Your task to perform on an android device: View the shopping cart on target. Image 0: 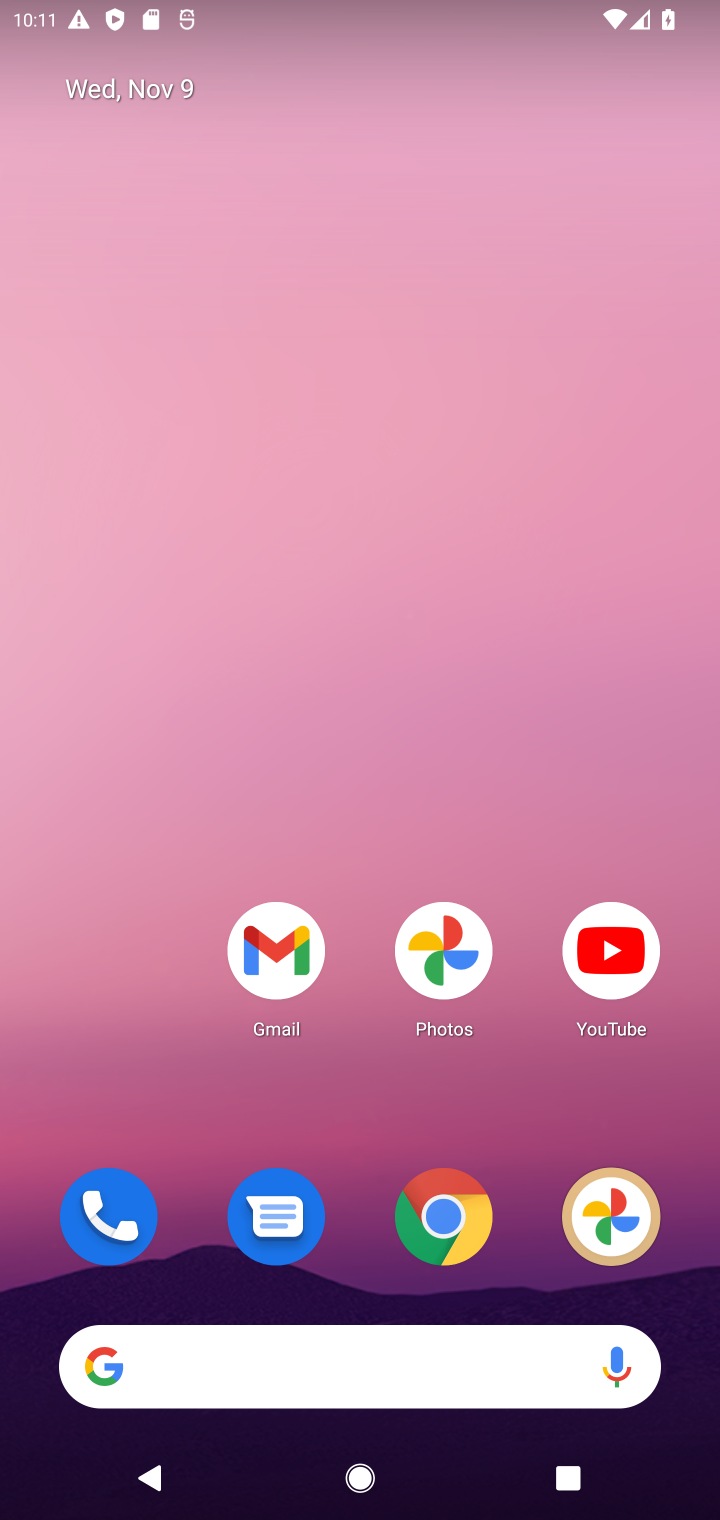
Step 0: drag from (369, 1103) to (227, 2)
Your task to perform on an android device: View the shopping cart on target. Image 1: 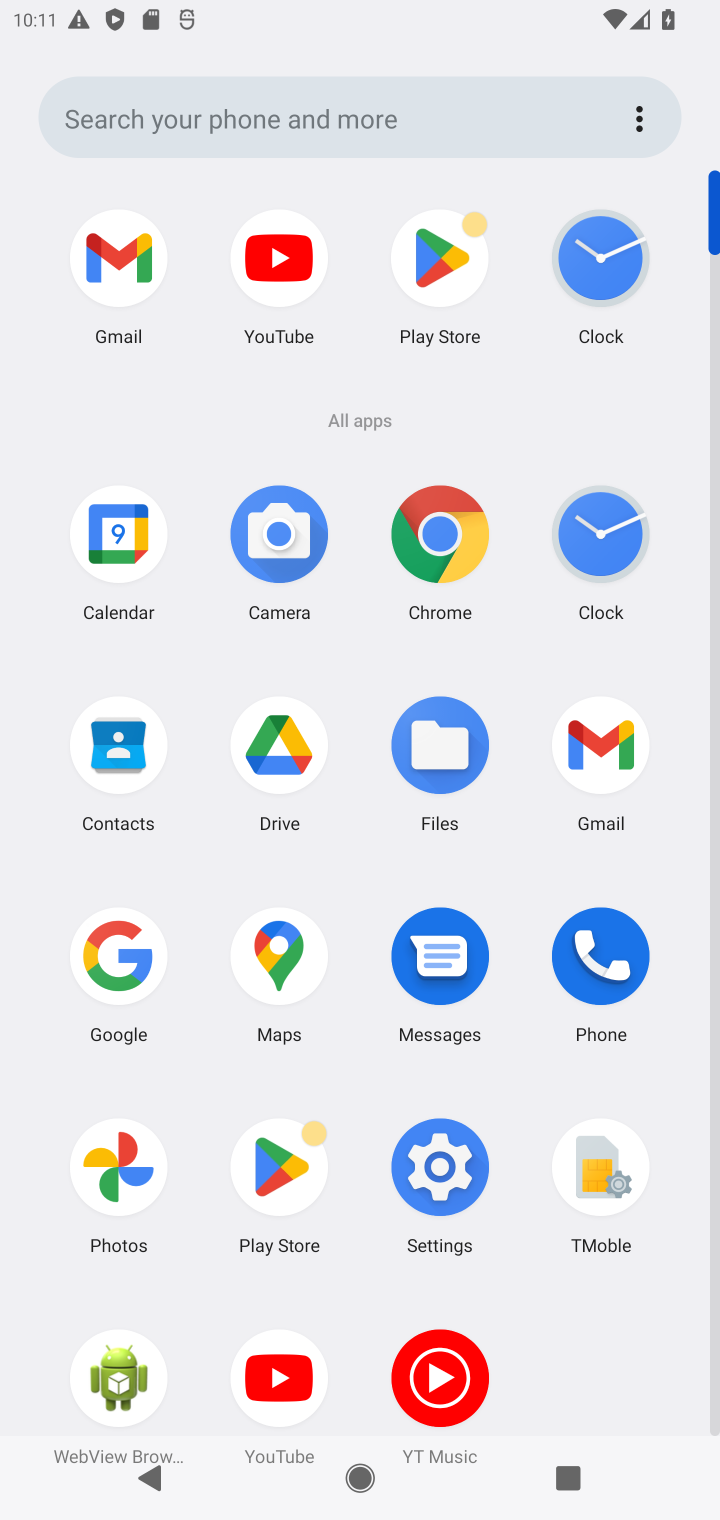
Step 1: click (431, 534)
Your task to perform on an android device: View the shopping cart on target. Image 2: 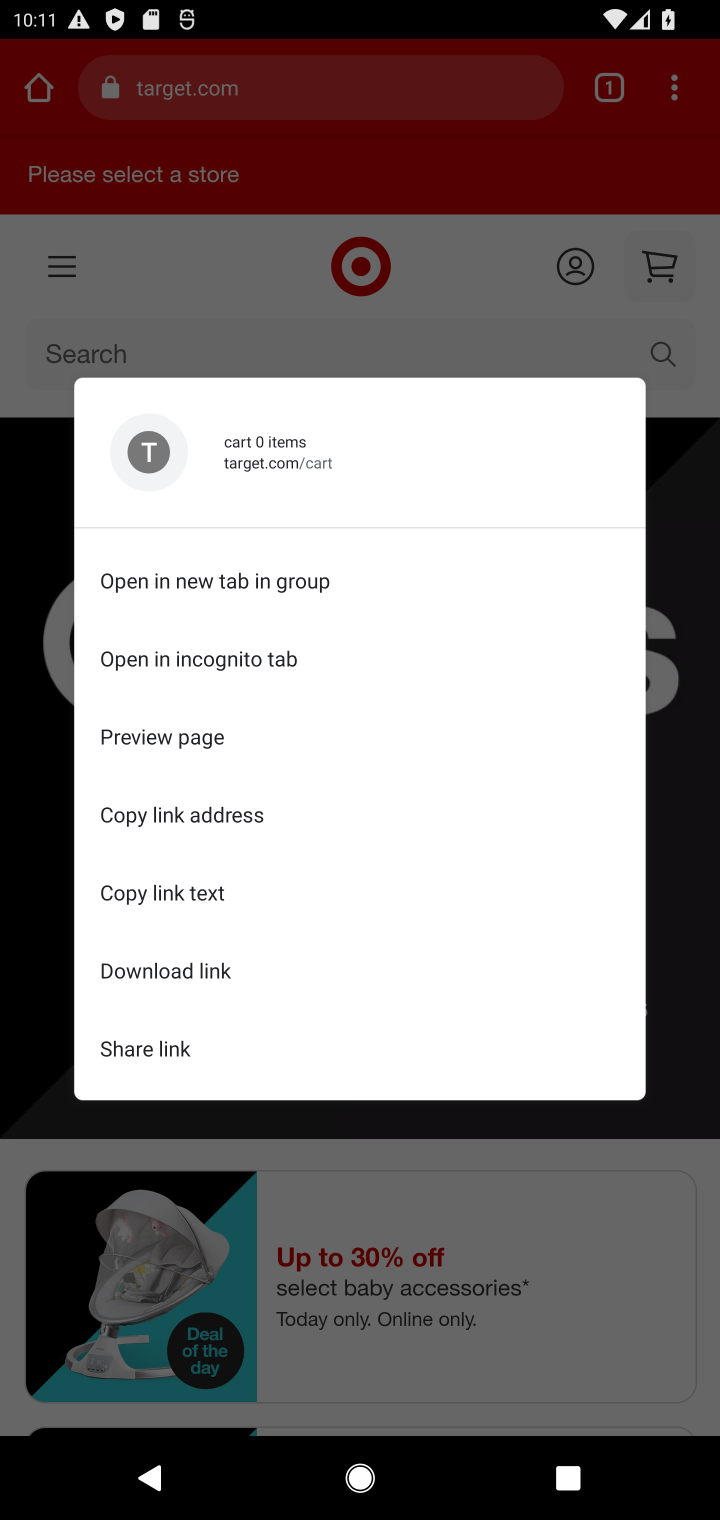
Step 2: click (433, 127)
Your task to perform on an android device: View the shopping cart on target. Image 3: 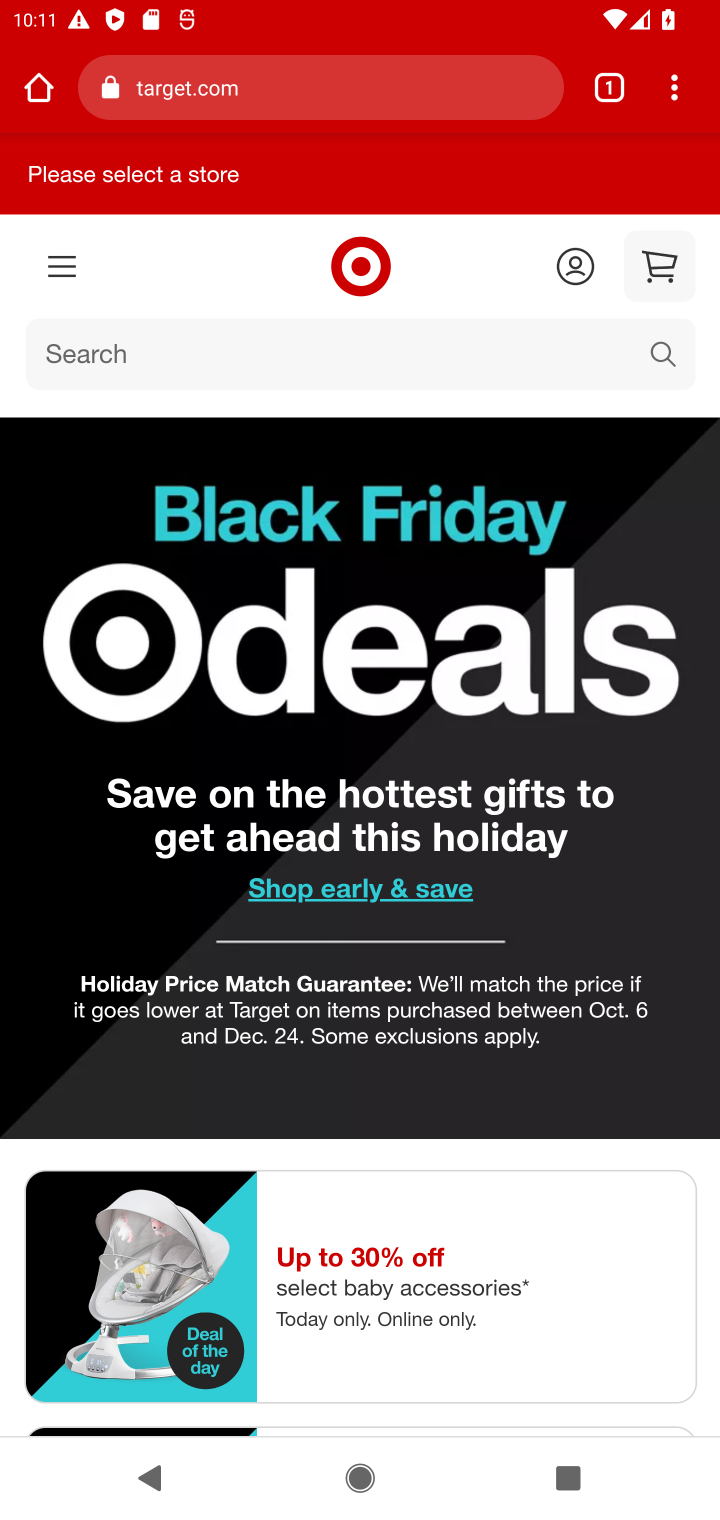
Step 3: drag from (456, 296) to (474, 487)
Your task to perform on an android device: View the shopping cart on target. Image 4: 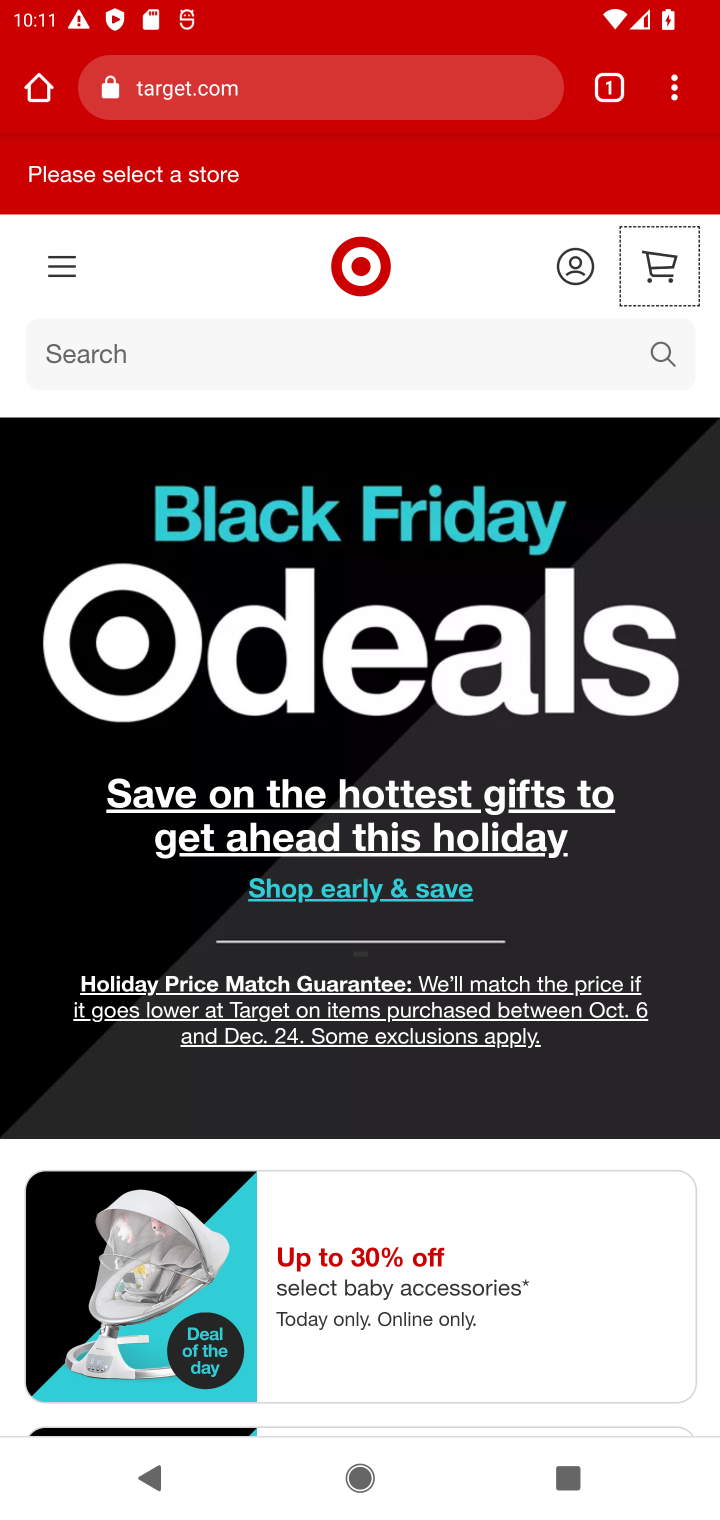
Step 4: click (658, 266)
Your task to perform on an android device: View the shopping cart on target. Image 5: 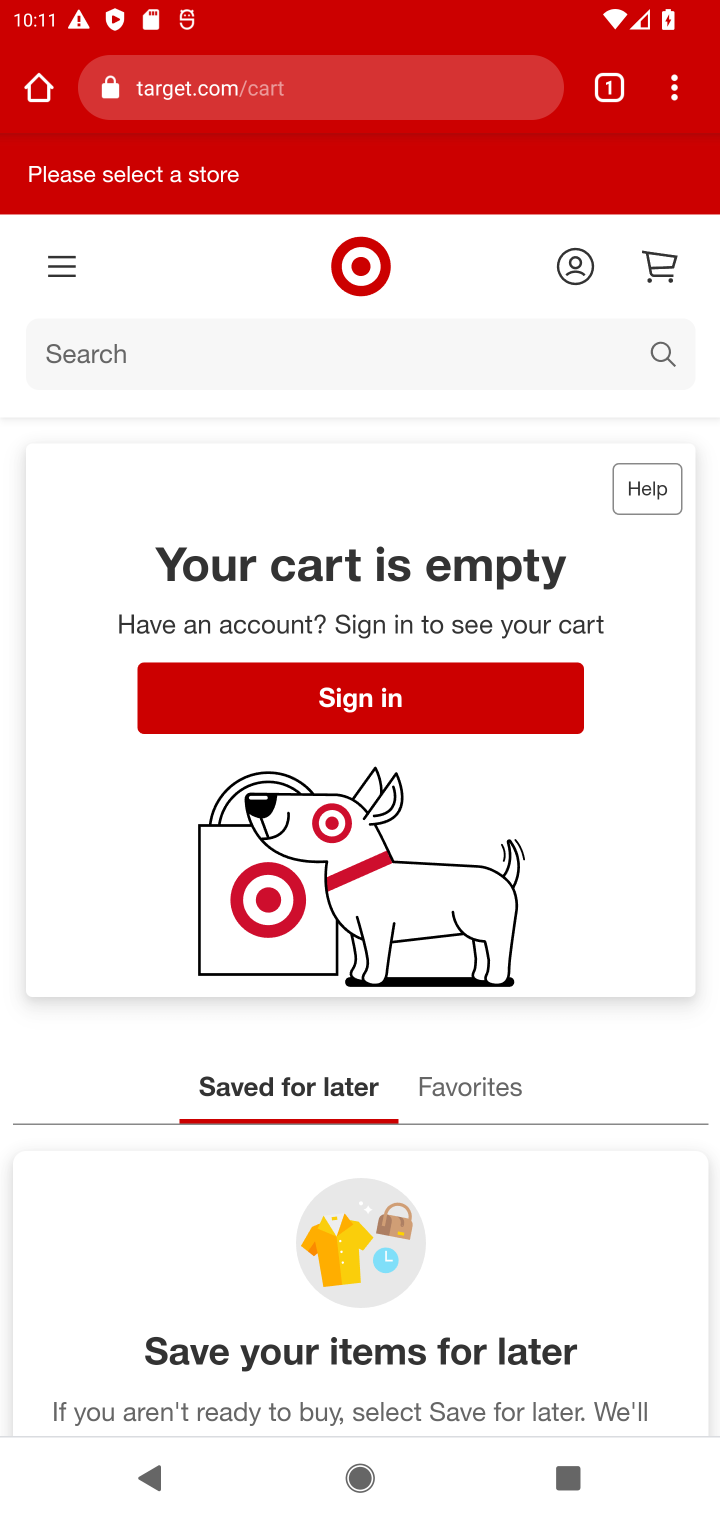
Step 5: task complete